Your task to perform on an android device: How do I get to the nearest Burger King? Image 0: 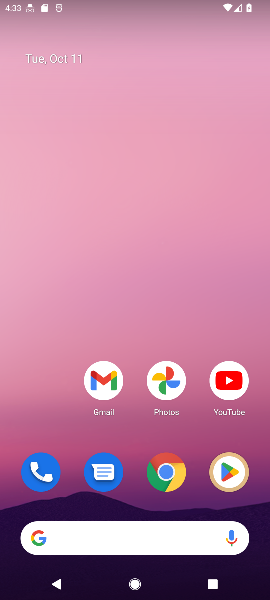
Step 0: click (176, 467)
Your task to perform on an android device: How do I get to the nearest Burger King? Image 1: 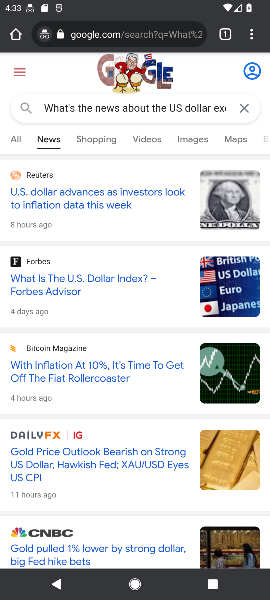
Step 1: click (142, 29)
Your task to perform on an android device: How do I get to the nearest Burger King? Image 2: 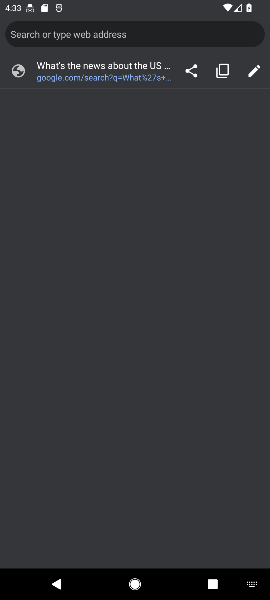
Step 2: type "nearest Burger King?"
Your task to perform on an android device: How do I get to the nearest Burger King? Image 3: 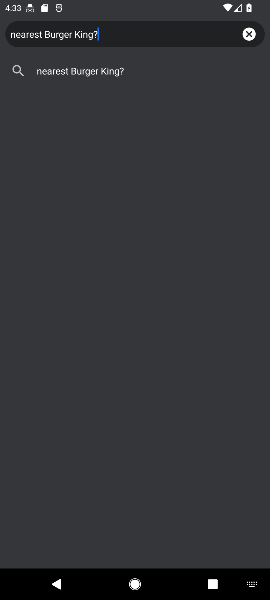
Step 3: click (90, 70)
Your task to perform on an android device: How do I get to the nearest Burger King? Image 4: 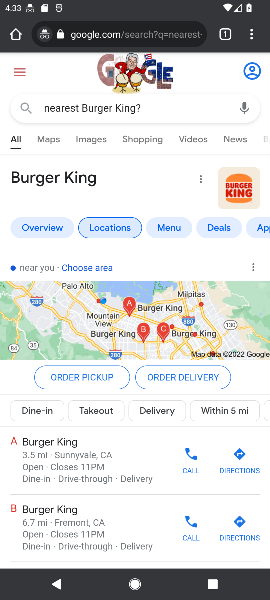
Step 4: task complete